Your task to perform on an android device: What's a good restaurant in Philadelphia? Image 0: 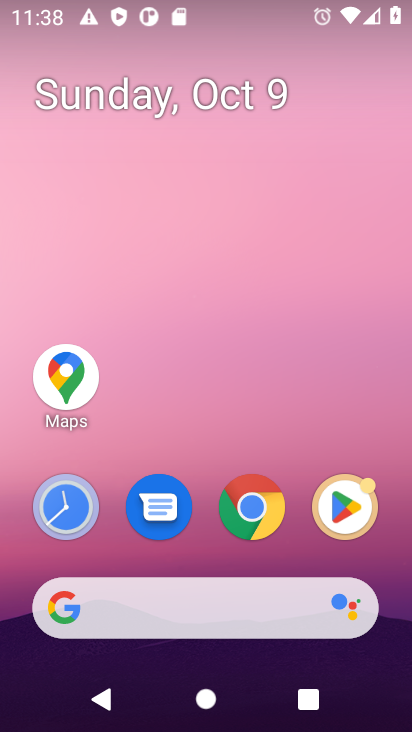
Step 0: press home button
Your task to perform on an android device: What's a good restaurant in Philadelphia? Image 1: 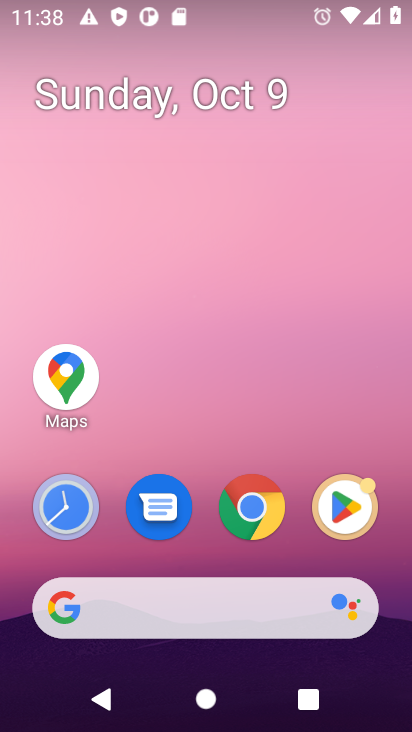
Step 1: click (247, 602)
Your task to perform on an android device: What's a good restaurant in Philadelphia? Image 2: 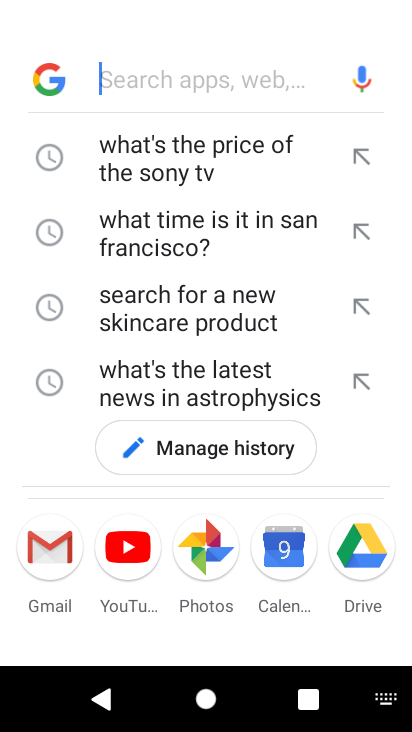
Step 2: type "What's a good restaurant in Philadelphia"
Your task to perform on an android device: What's a good restaurant in Philadelphia? Image 3: 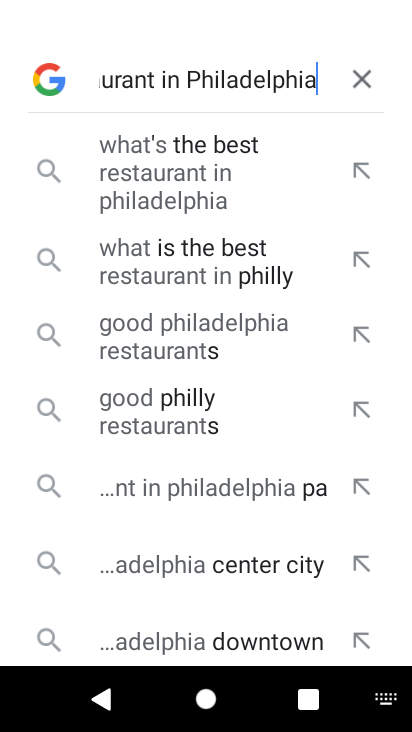
Step 3: press enter
Your task to perform on an android device: What's a good restaurant in Philadelphia? Image 4: 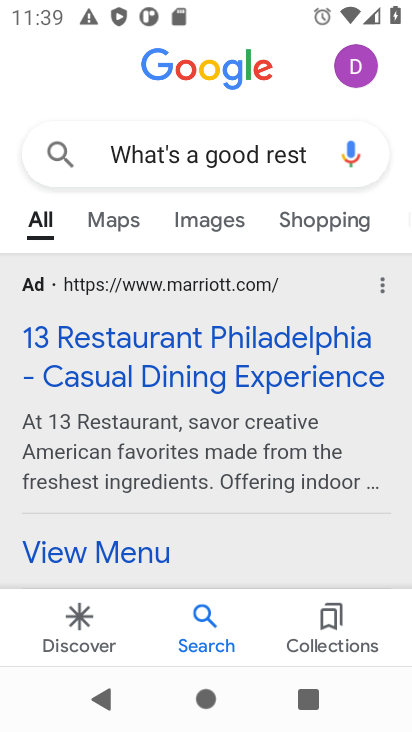
Step 4: click (271, 342)
Your task to perform on an android device: What's a good restaurant in Philadelphia? Image 5: 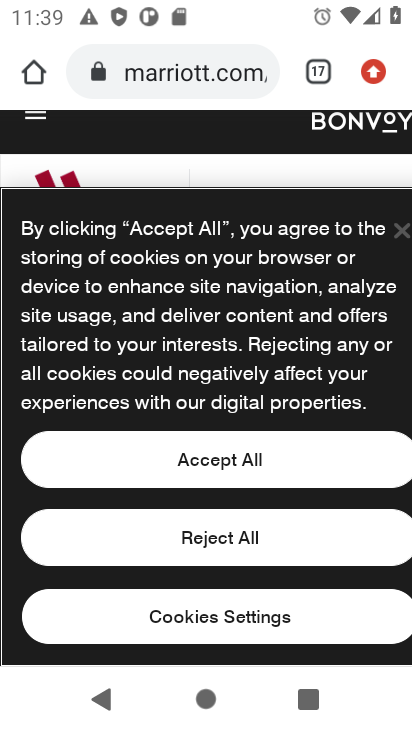
Step 5: click (280, 461)
Your task to perform on an android device: What's a good restaurant in Philadelphia? Image 6: 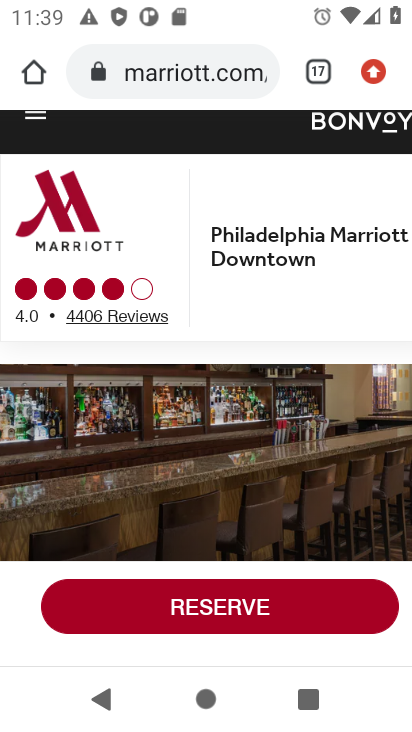
Step 6: task complete